Your task to perform on an android device: toggle wifi Image 0: 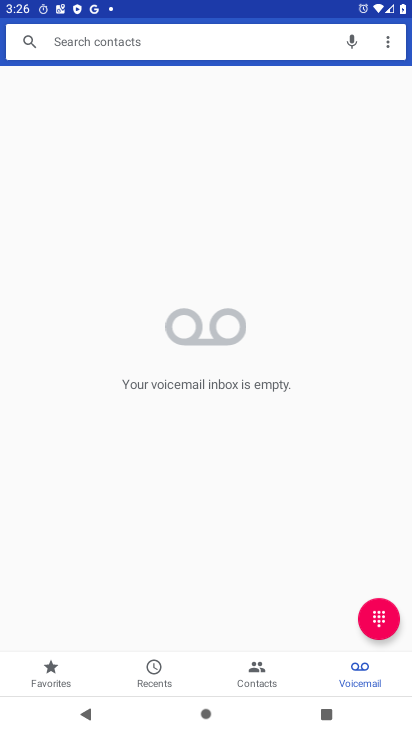
Step 0: press home button
Your task to perform on an android device: toggle wifi Image 1: 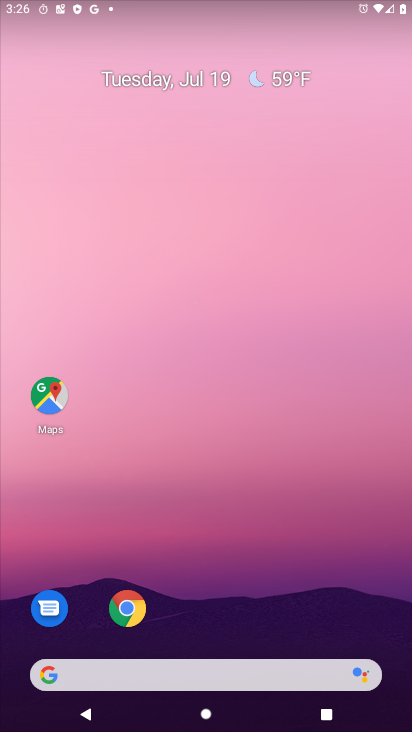
Step 1: drag from (337, 619) to (274, 59)
Your task to perform on an android device: toggle wifi Image 2: 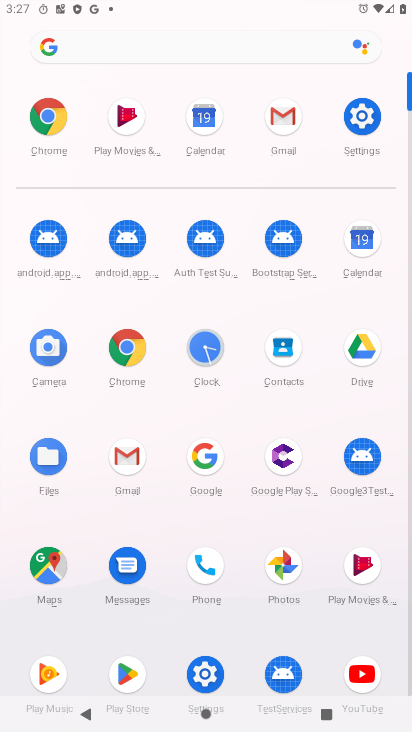
Step 2: click (368, 123)
Your task to perform on an android device: toggle wifi Image 3: 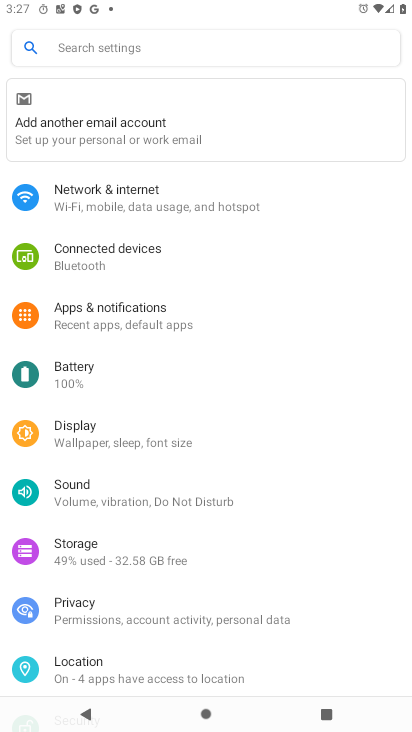
Step 3: click (239, 202)
Your task to perform on an android device: toggle wifi Image 4: 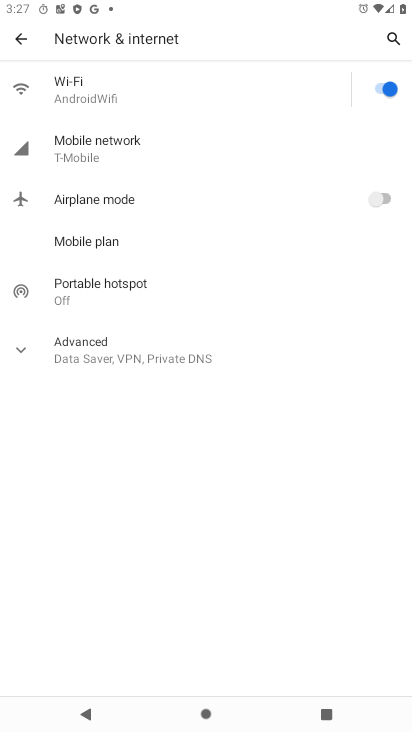
Step 4: click (387, 84)
Your task to perform on an android device: toggle wifi Image 5: 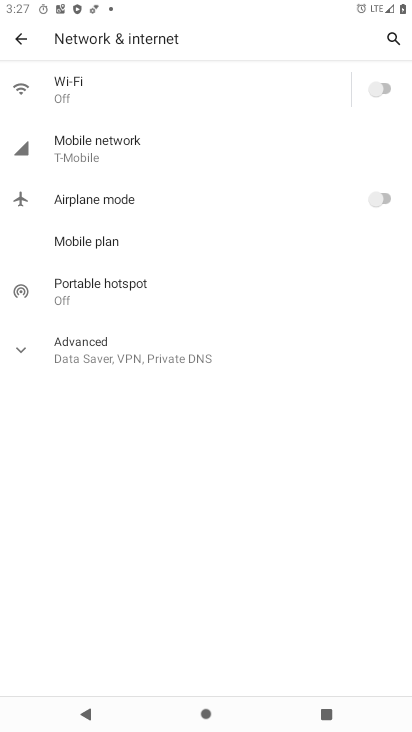
Step 5: task complete